Your task to perform on an android device: Search for vegetarian restaurants on Maps Image 0: 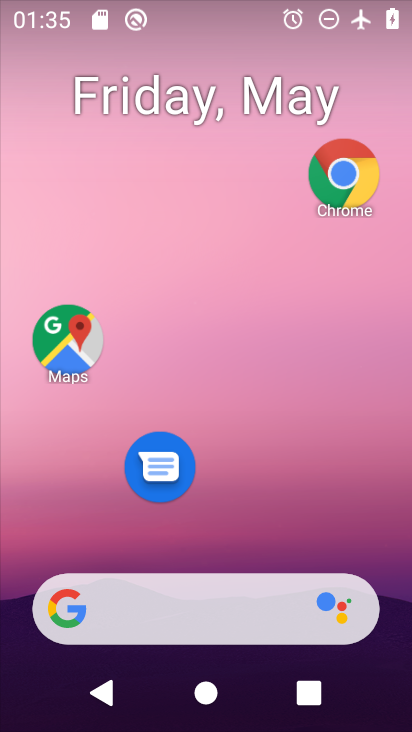
Step 0: click (45, 340)
Your task to perform on an android device: Search for vegetarian restaurants on Maps Image 1: 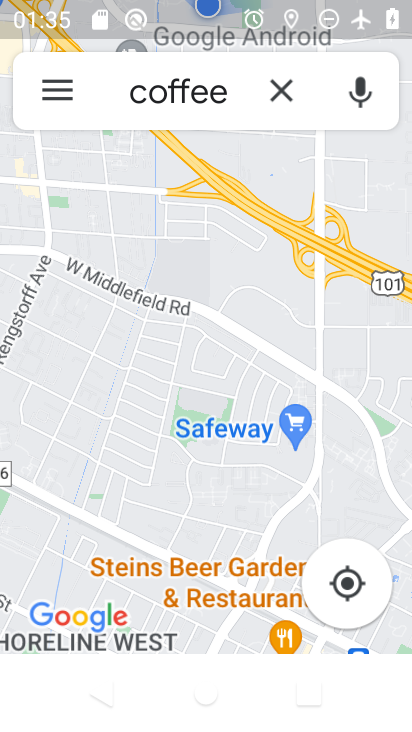
Step 1: click (282, 80)
Your task to perform on an android device: Search for vegetarian restaurants on Maps Image 2: 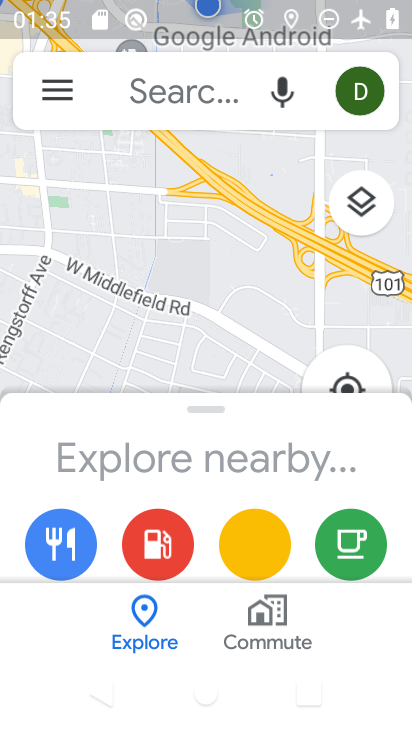
Step 2: click (183, 90)
Your task to perform on an android device: Search for vegetarian restaurants on Maps Image 3: 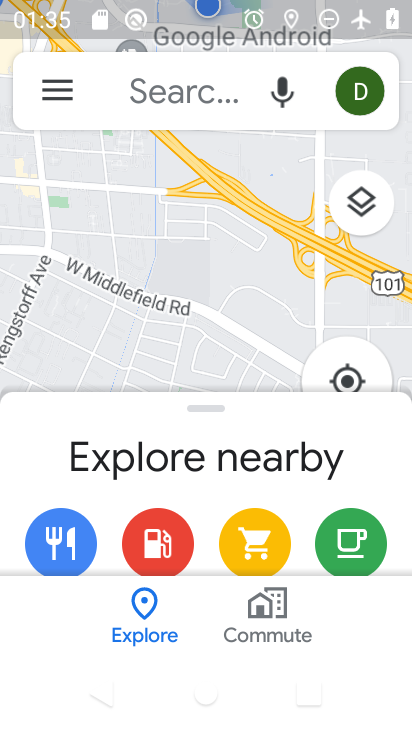
Step 3: click (184, 89)
Your task to perform on an android device: Search for vegetarian restaurants on Maps Image 4: 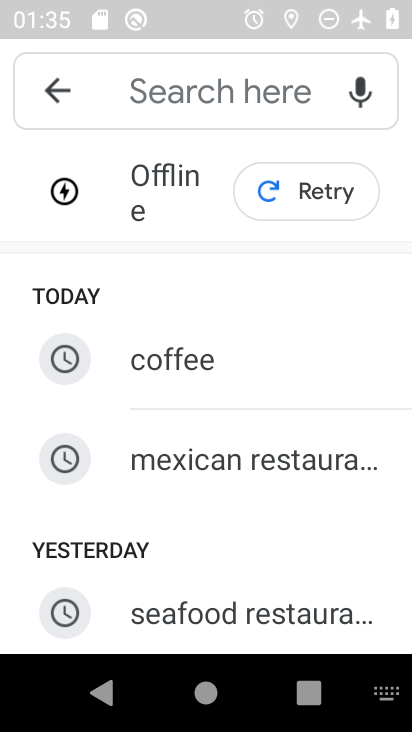
Step 4: type "vegetarian restaurant"
Your task to perform on an android device: Search for vegetarian restaurants on Maps Image 5: 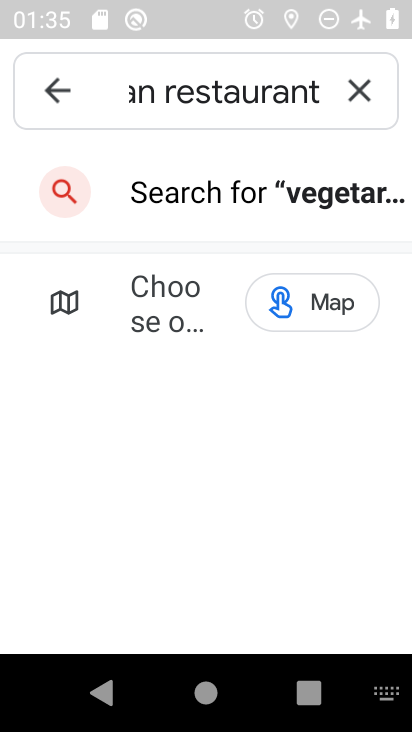
Step 5: click (239, 125)
Your task to perform on an android device: Search for vegetarian restaurants on Maps Image 6: 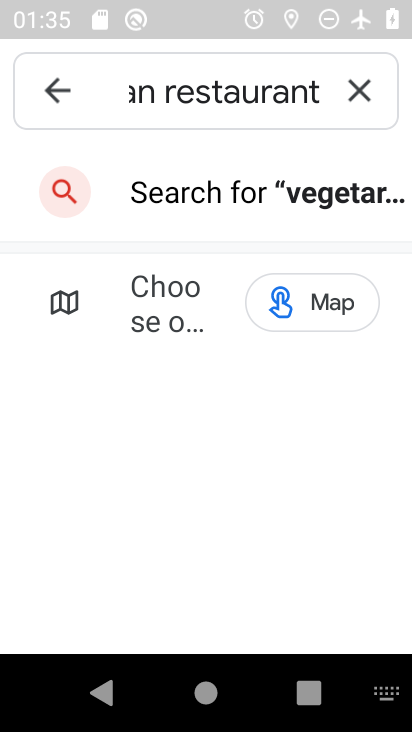
Step 6: click (266, 189)
Your task to perform on an android device: Search for vegetarian restaurants on Maps Image 7: 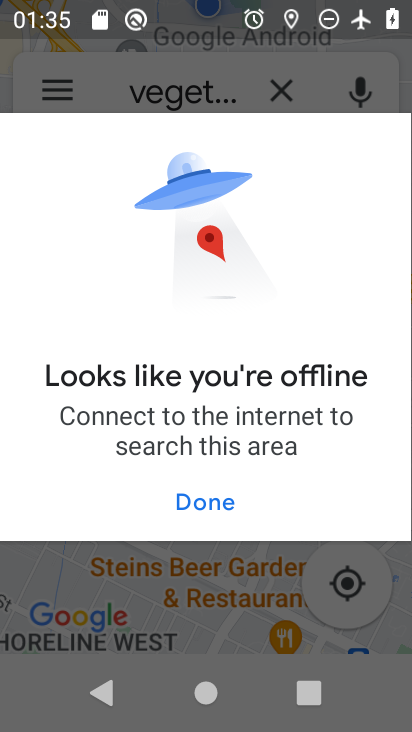
Step 7: click (322, 188)
Your task to perform on an android device: Search for vegetarian restaurants on Maps Image 8: 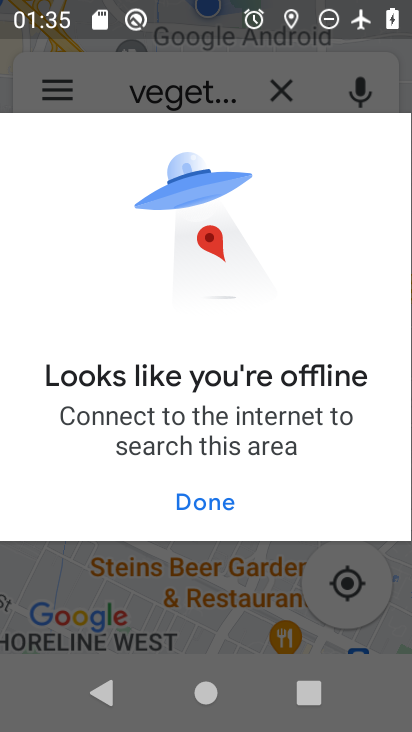
Step 8: task complete